Your task to perform on an android device: uninstall "ZOOM Cloud Meetings" Image 0: 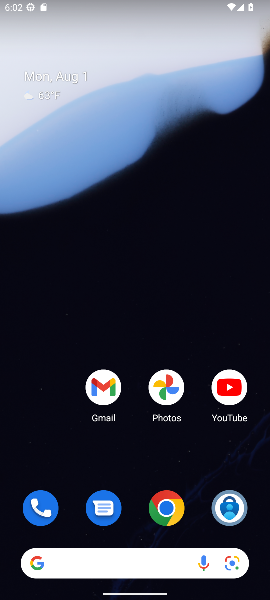
Step 0: drag from (119, 534) to (79, 63)
Your task to perform on an android device: uninstall "ZOOM Cloud Meetings" Image 1: 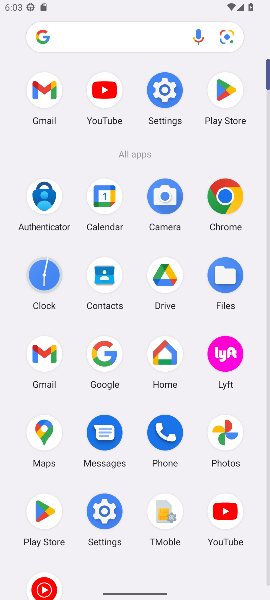
Step 1: click (26, 519)
Your task to perform on an android device: uninstall "ZOOM Cloud Meetings" Image 2: 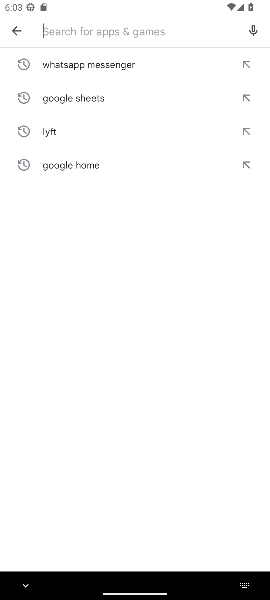
Step 2: type "ZOOM Cloud Meeting"
Your task to perform on an android device: uninstall "ZOOM Cloud Meetings" Image 3: 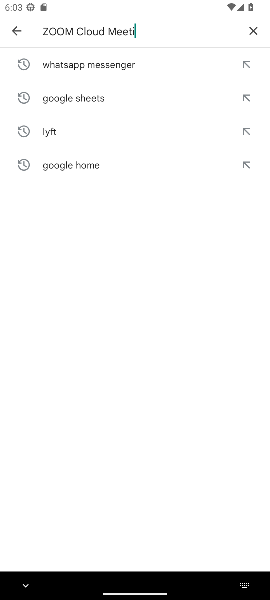
Step 3: type ""
Your task to perform on an android device: uninstall "ZOOM Cloud Meetings" Image 4: 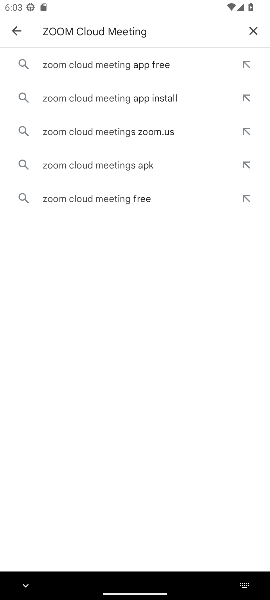
Step 4: click (80, 71)
Your task to perform on an android device: uninstall "ZOOM Cloud Meetings" Image 5: 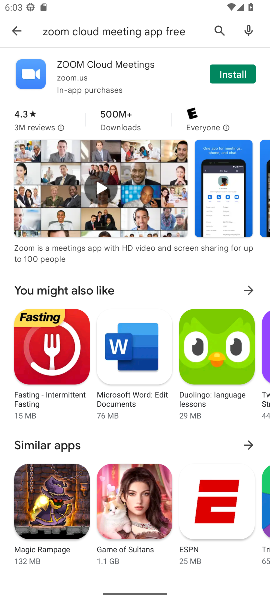
Step 5: click (126, 74)
Your task to perform on an android device: uninstall "ZOOM Cloud Meetings" Image 6: 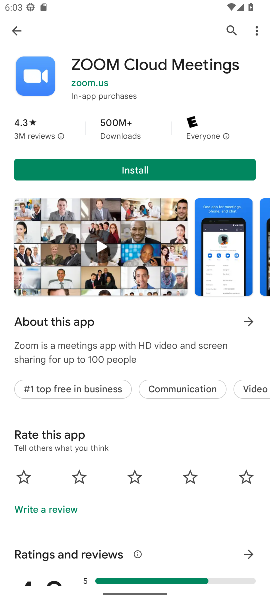
Step 6: task complete